Your task to perform on an android device: set default search engine in the chrome app Image 0: 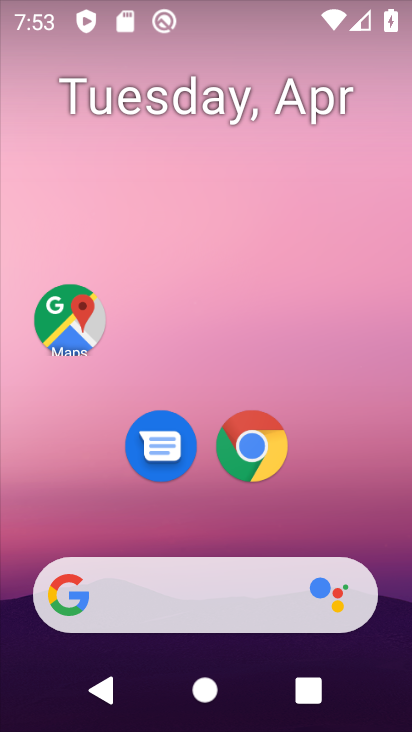
Step 0: click (253, 449)
Your task to perform on an android device: set default search engine in the chrome app Image 1: 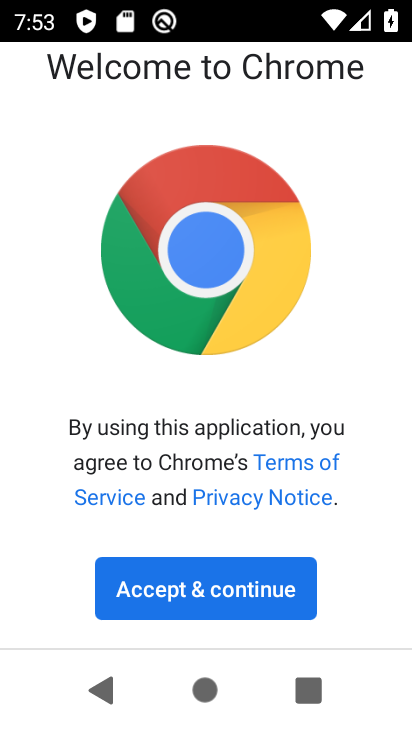
Step 1: click (214, 586)
Your task to perform on an android device: set default search engine in the chrome app Image 2: 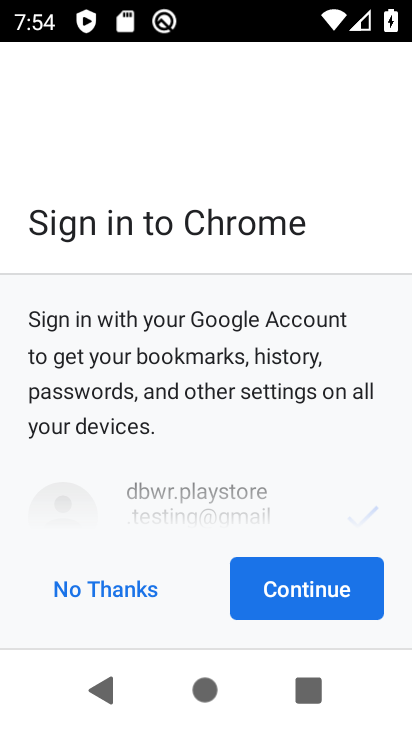
Step 2: click (282, 579)
Your task to perform on an android device: set default search engine in the chrome app Image 3: 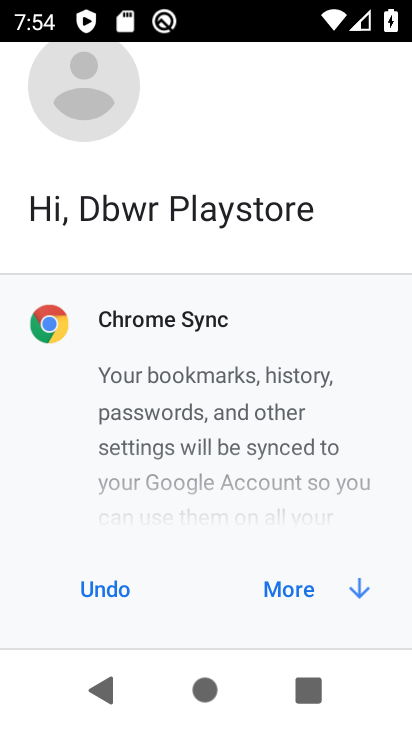
Step 3: click (287, 586)
Your task to perform on an android device: set default search engine in the chrome app Image 4: 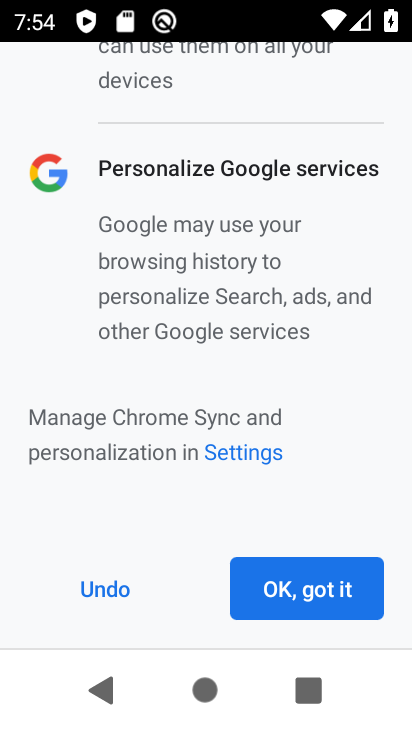
Step 4: click (287, 586)
Your task to perform on an android device: set default search engine in the chrome app Image 5: 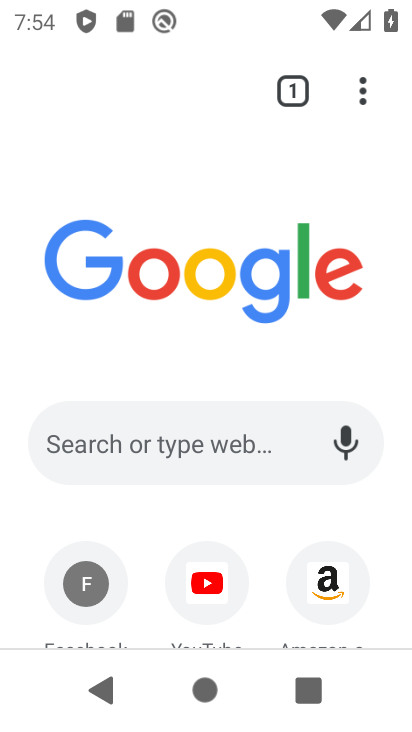
Step 5: click (408, 151)
Your task to perform on an android device: set default search engine in the chrome app Image 6: 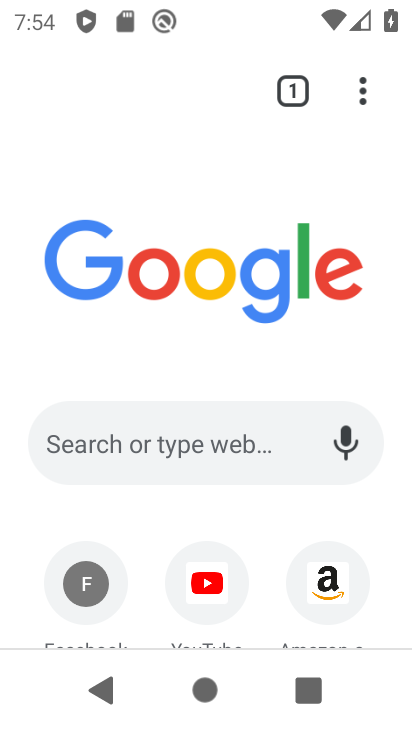
Step 6: click (361, 88)
Your task to perform on an android device: set default search engine in the chrome app Image 7: 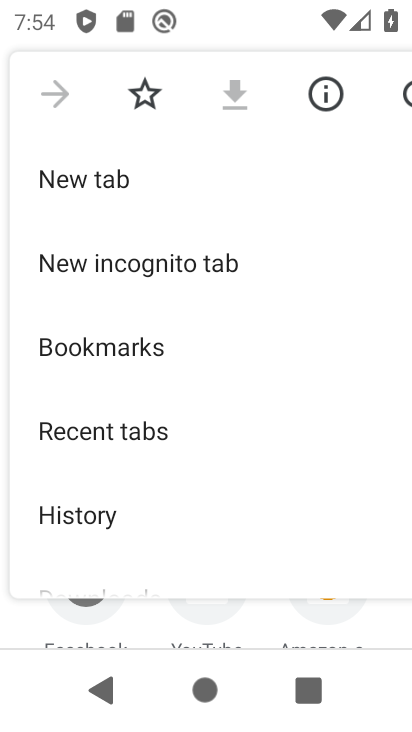
Step 7: drag from (224, 502) to (222, 147)
Your task to perform on an android device: set default search engine in the chrome app Image 8: 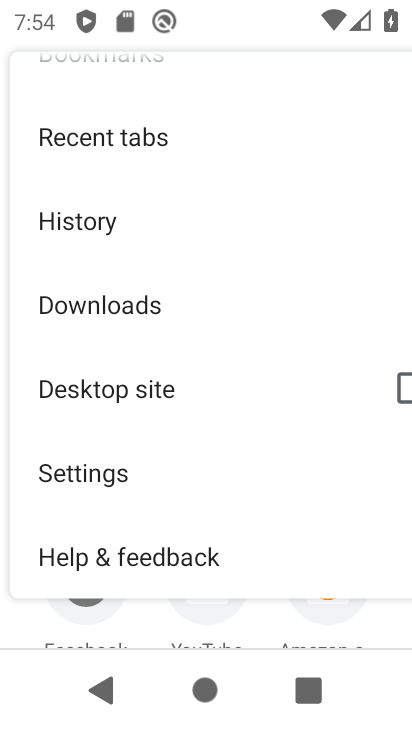
Step 8: click (87, 473)
Your task to perform on an android device: set default search engine in the chrome app Image 9: 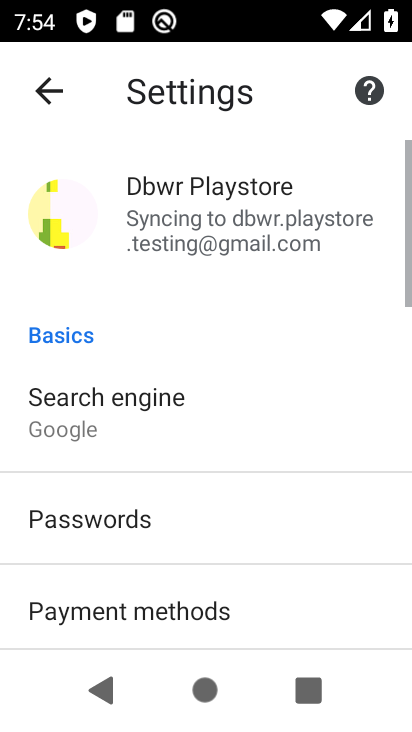
Step 9: drag from (200, 625) to (204, 329)
Your task to perform on an android device: set default search engine in the chrome app Image 10: 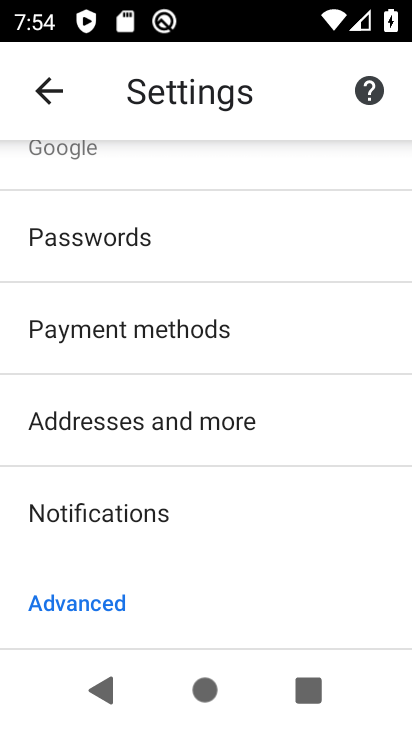
Step 10: drag from (171, 172) to (202, 362)
Your task to perform on an android device: set default search engine in the chrome app Image 11: 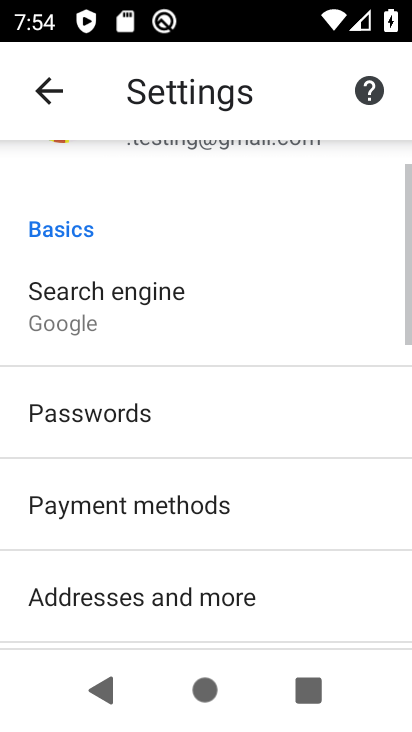
Step 11: click (99, 303)
Your task to perform on an android device: set default search engine in the chrome app Image 12: 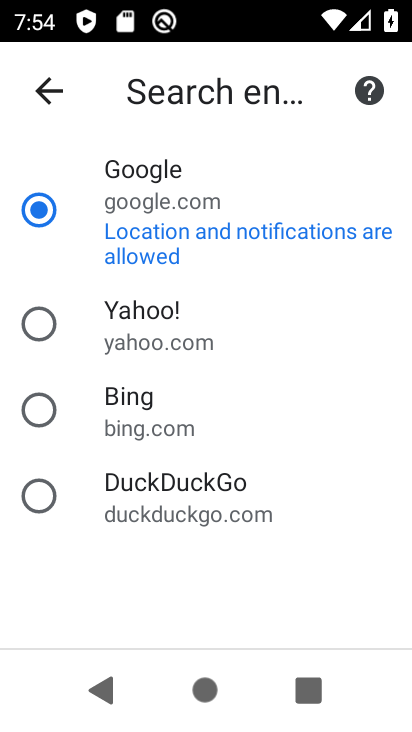
Step 12: click (46, 324)
Your task to perform on an android device: set default search engine in the chrome app Image 13: 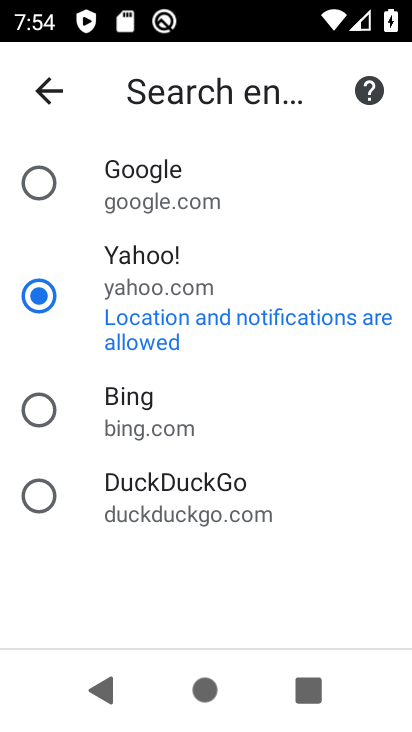
Step 13: task complete